Your task to perform on an android device: Go to network settings Image 0: 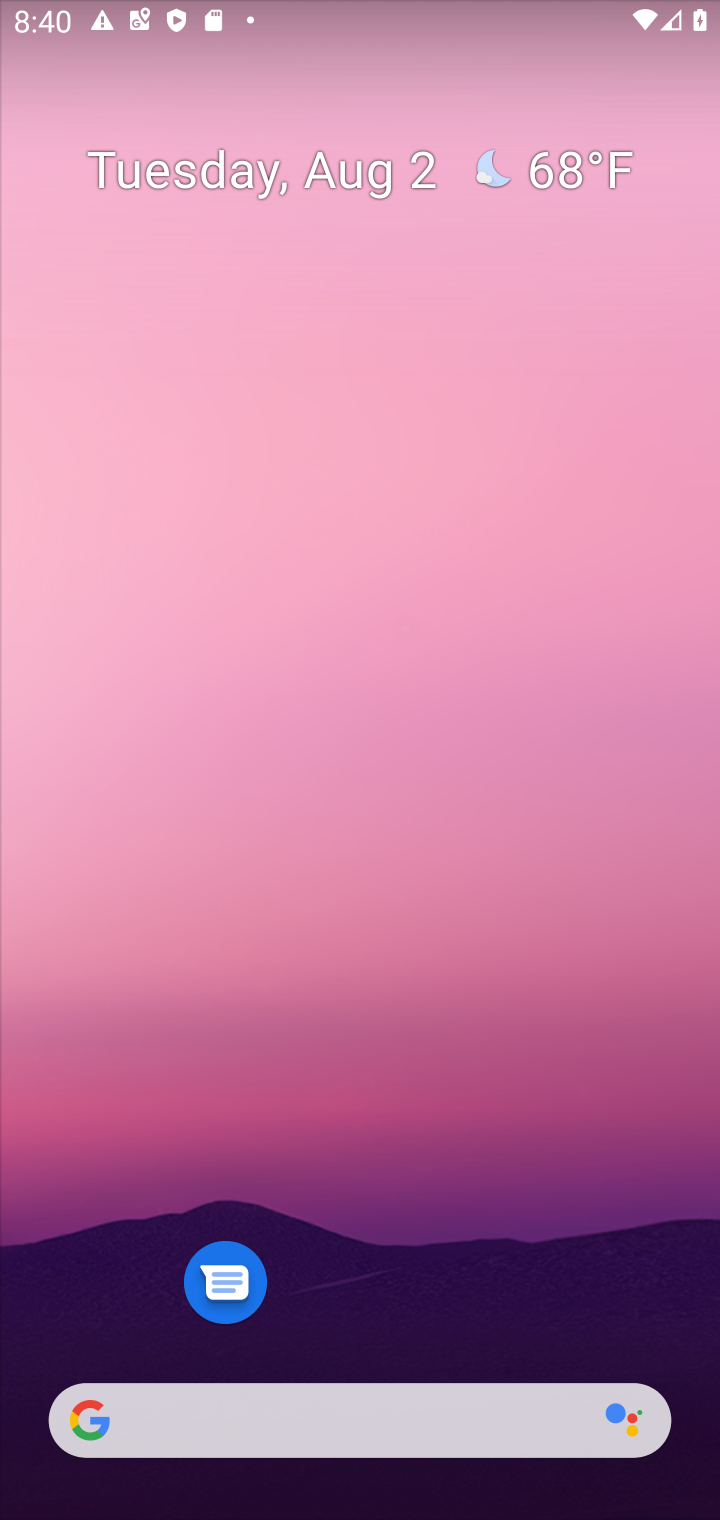
Step 0: drag from (424, 1365) to (237, 366)
Your task to perform on an android device: Go to network settings Image 1: 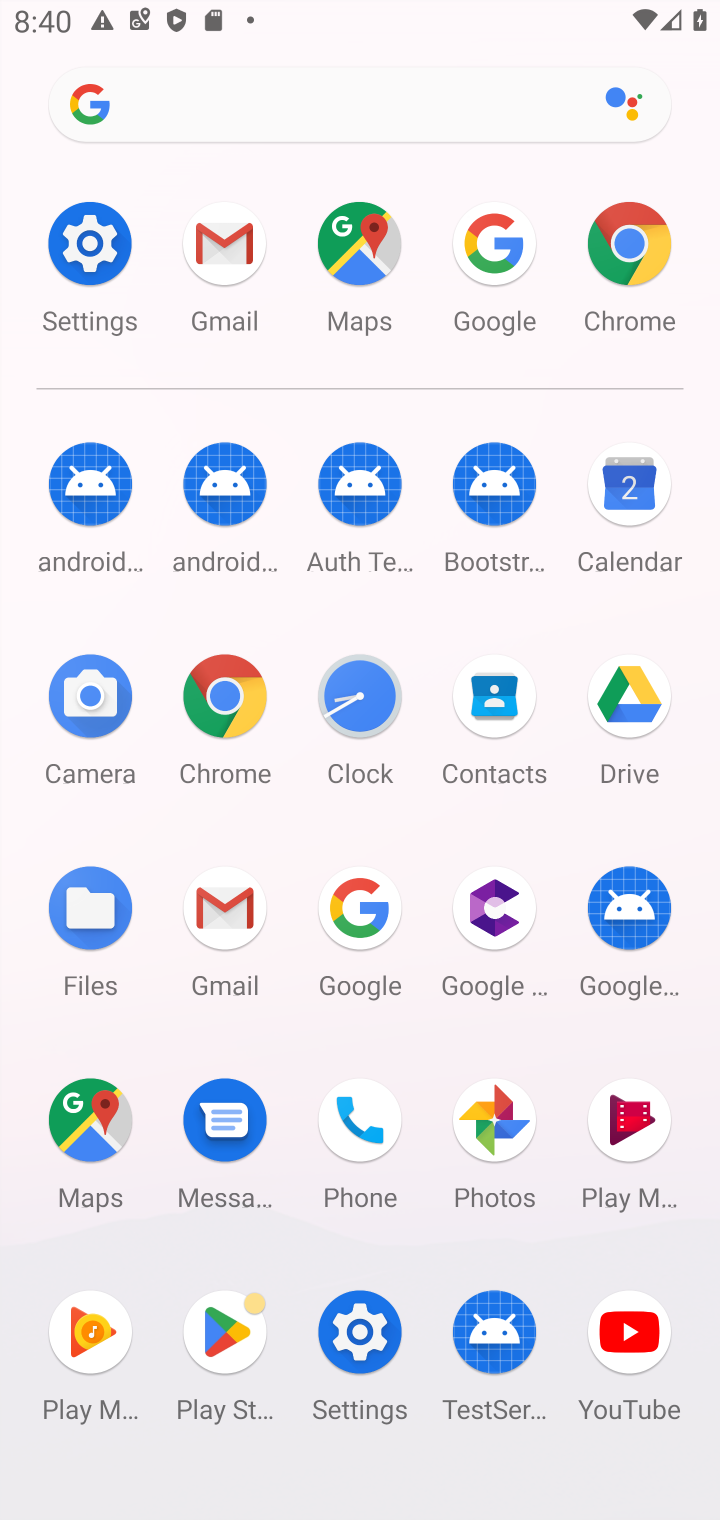
Step 1: click (61, 239)
Your task to perform on an android device: Go to network settings Image 2: 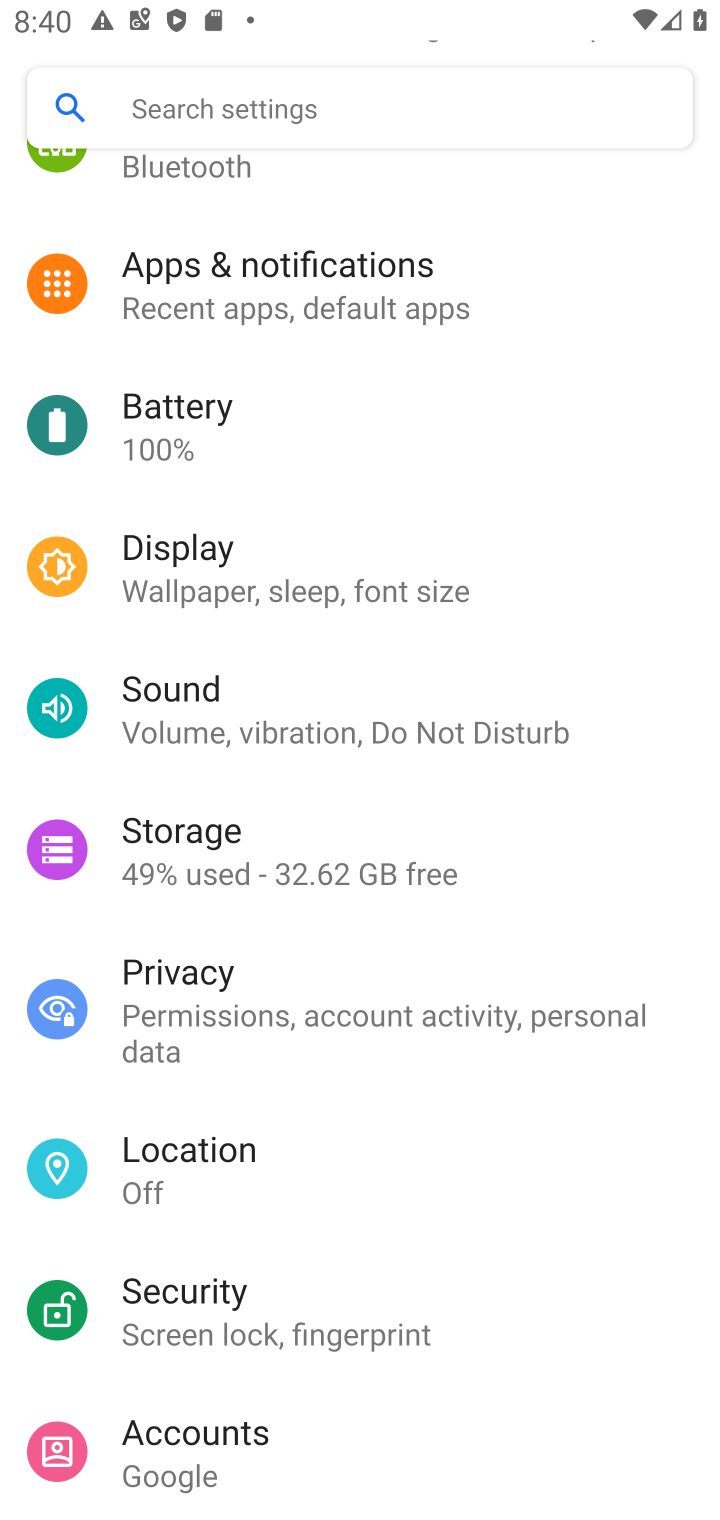
Step 2: drag from (287, 418) to (313, 1193)
Your task to perform on an android device: Go to network settings Image 3: 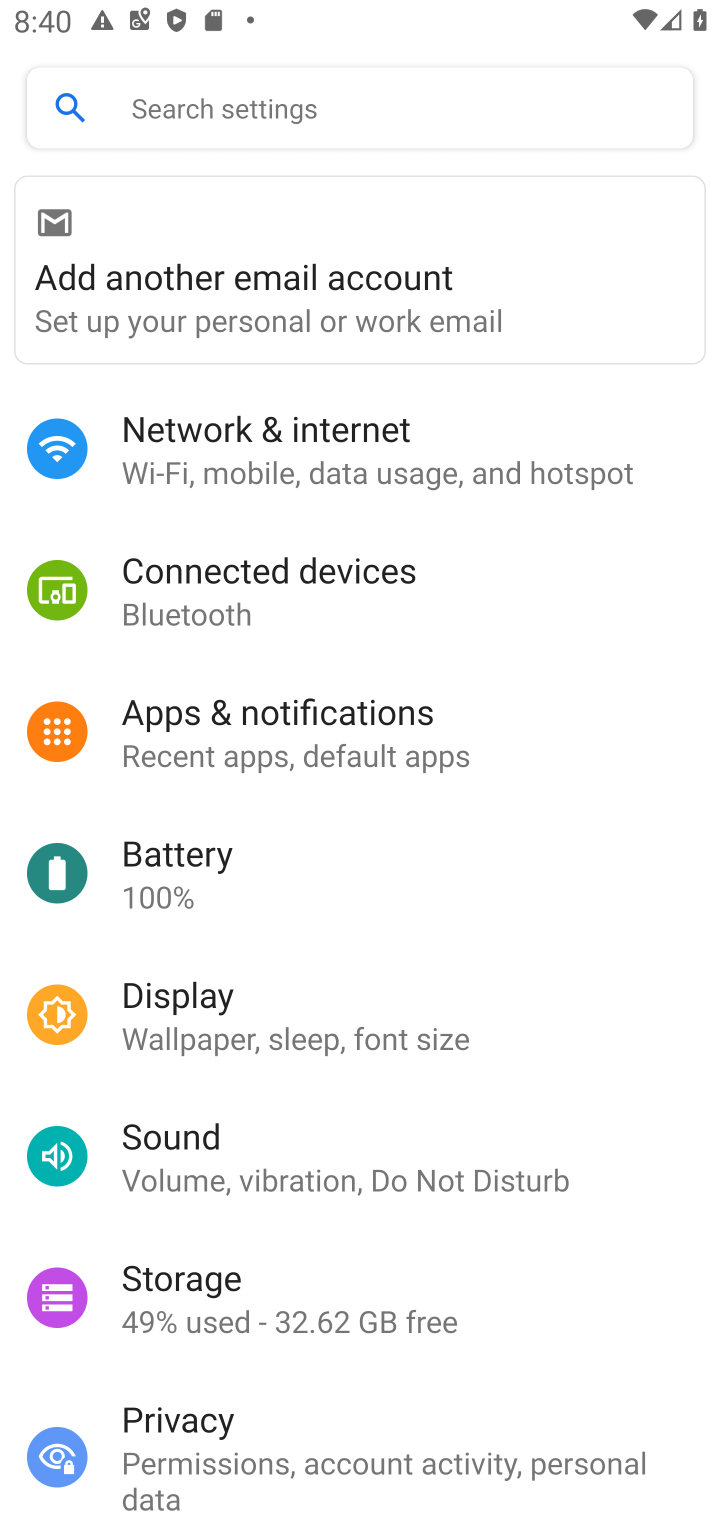
Step 3: click (291, 430)
Your task to perform on an android device: Go to network settings Image 4: 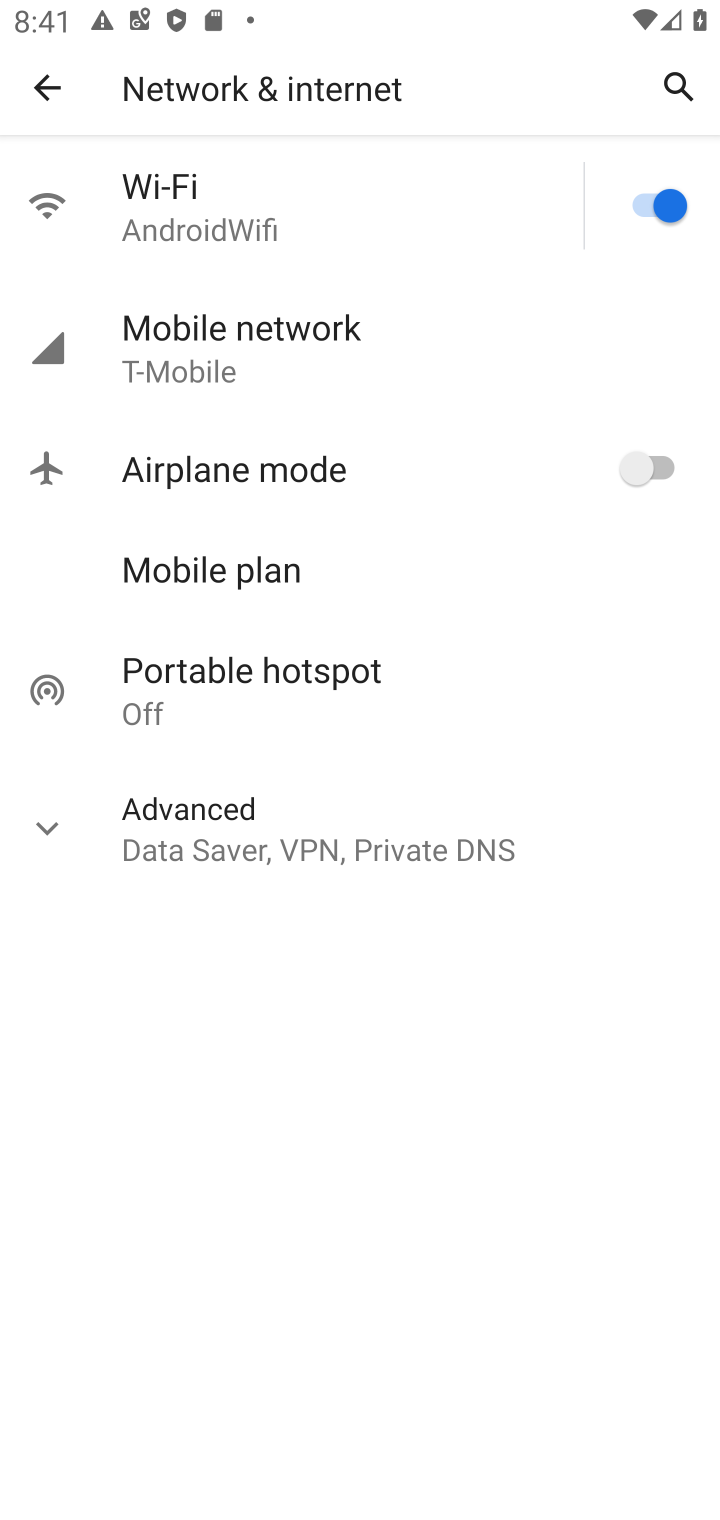
Step 4: click (137, 830)
Your task to perform on an android device: Go to network settings Image 5: 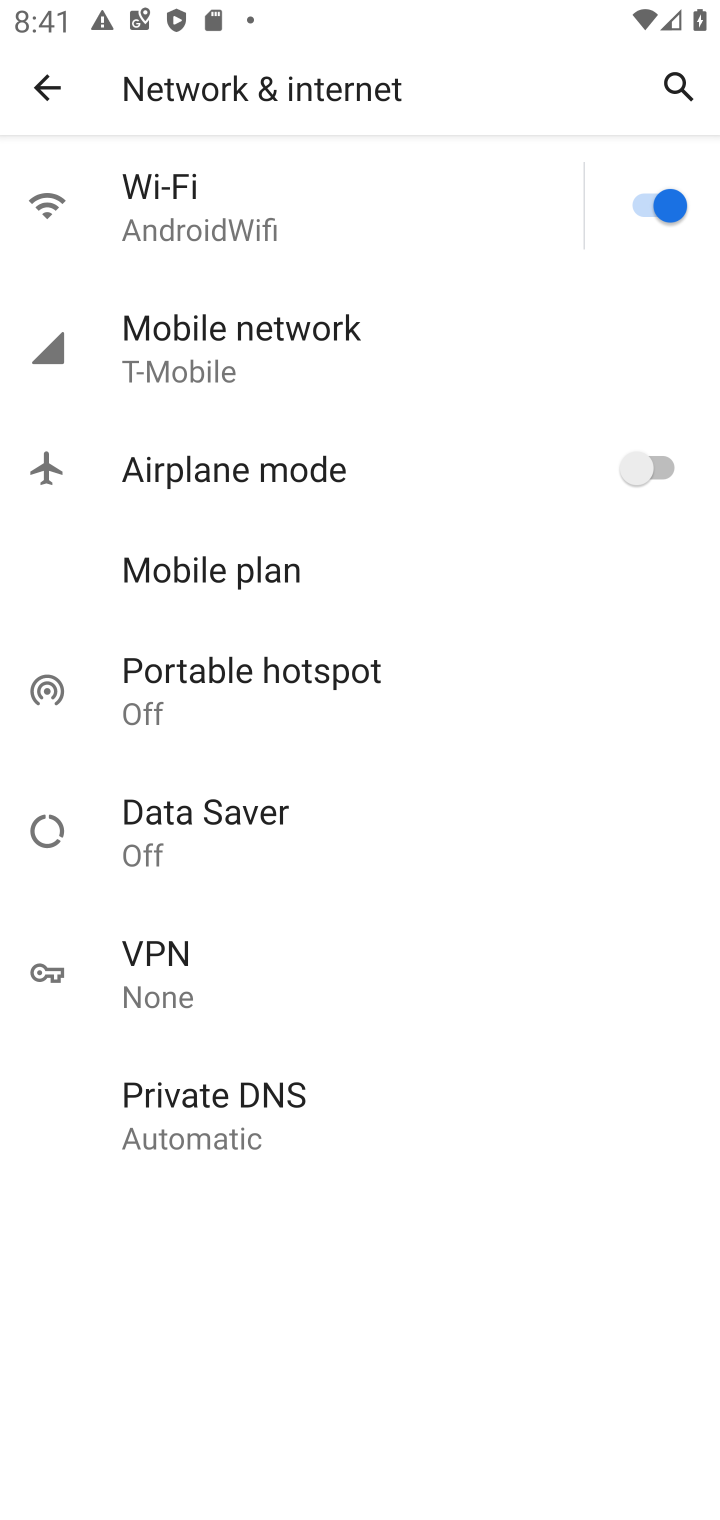
Step 5: click (292, 359)
Your task to perform on an android device: Go to network settings Image 6: 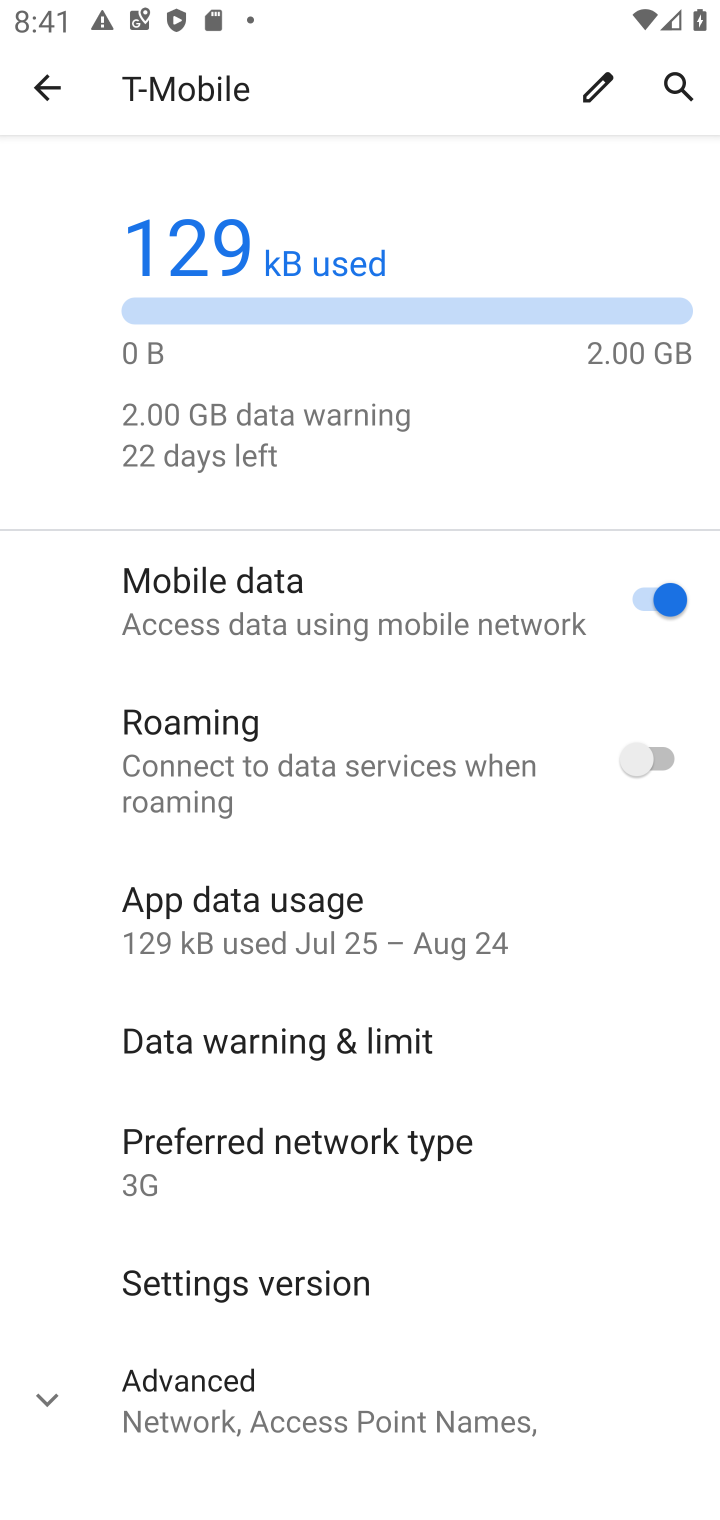
Step 6: task complete